Your task to perform on an android device: What's the weather? Image 0: 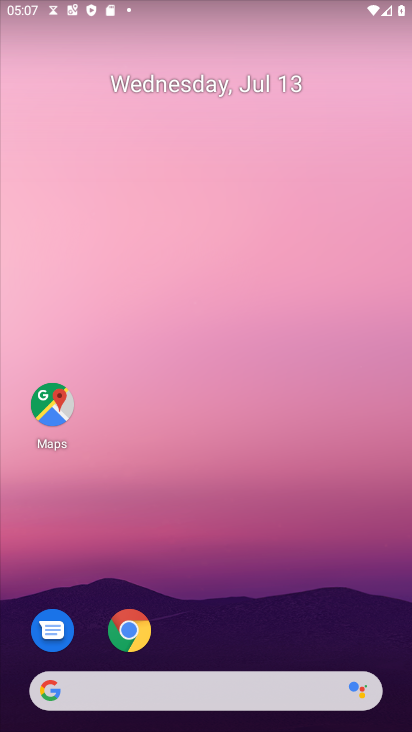
Step 0: drag from (227, 584) to (236, 20)
Your task to perform on an android device: What's the weather? Image 1: 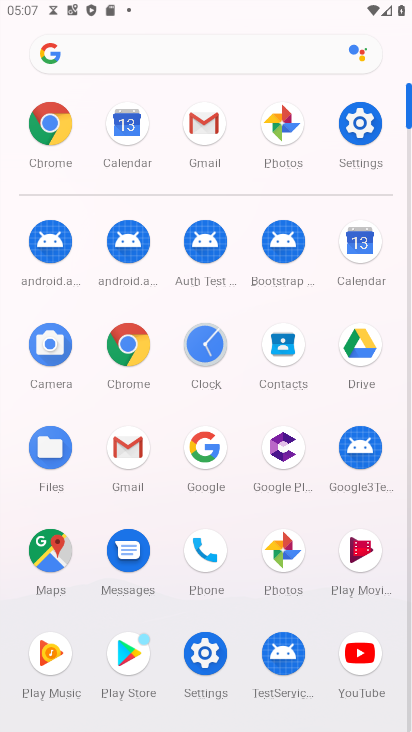
Step 1: click (120, 345)
Your task to perform on an android device: What's the weather? Image 2: 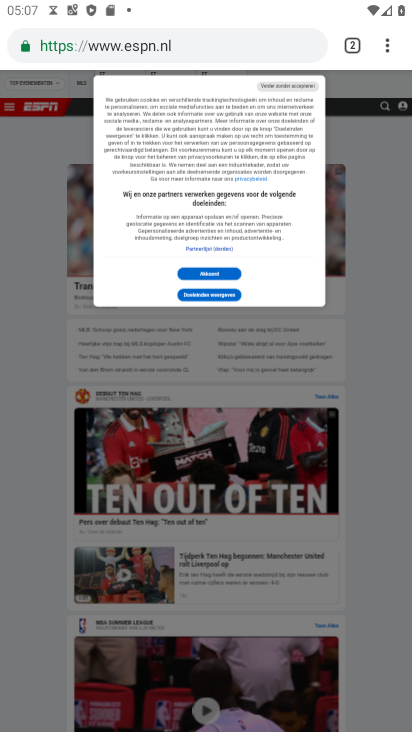
Step 2: click (229, 33)
Your task to perform on an android device: What's the weather? Image 3: 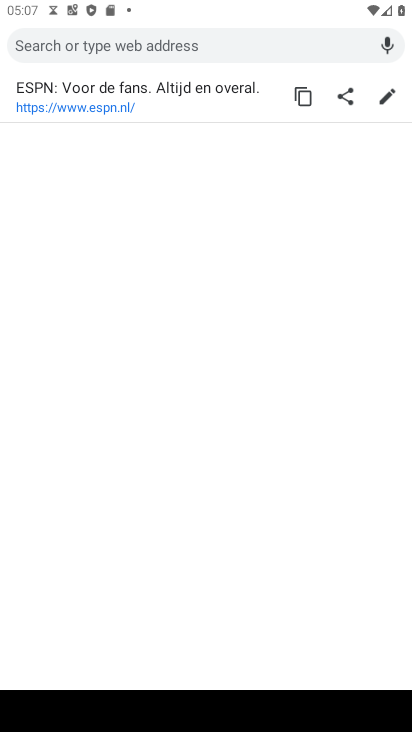
Step 3: type "whats the weather"
Your task to perform on an android device: What's the weather? Image 4: 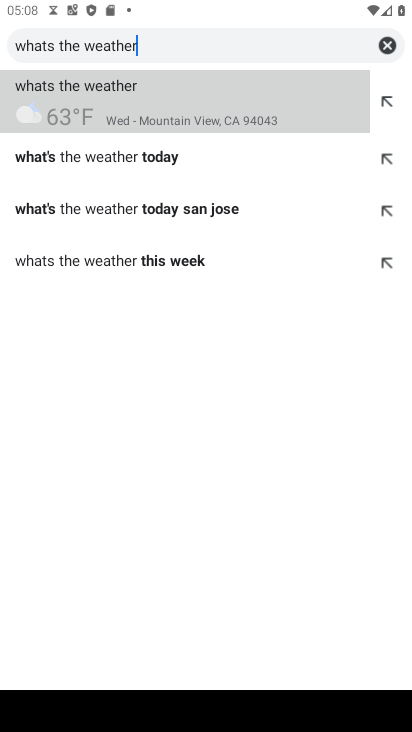
Step 4: click (212, 107)
Your task to perform on an android device: What's the weather? Image 5: 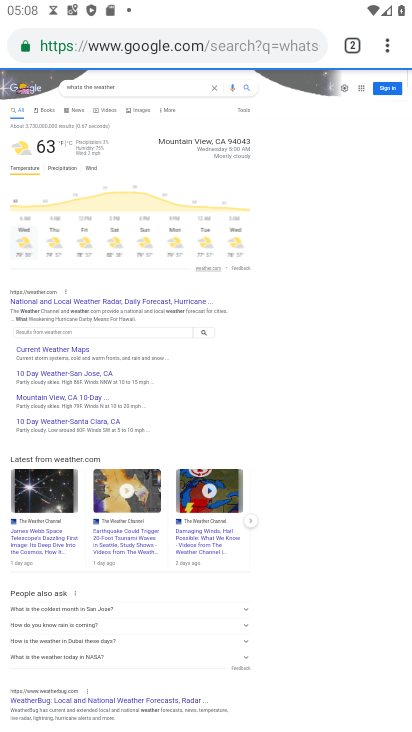
Step 5: task complete